Your task to perform on an android device: check out phone information Image 0: 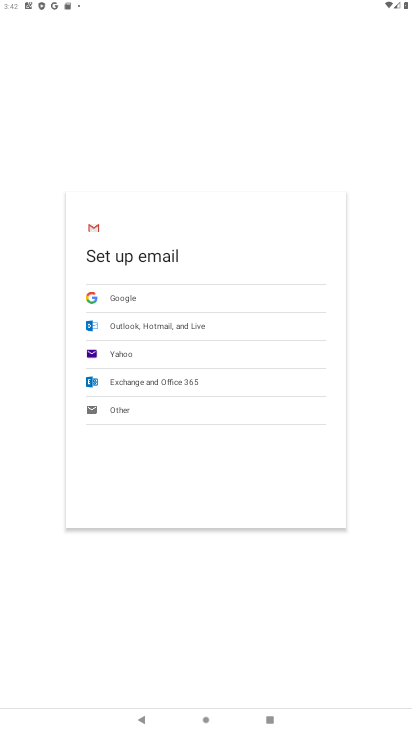
Step 0: press home button
Your task to perform on an android device: check out phone information Image 1: 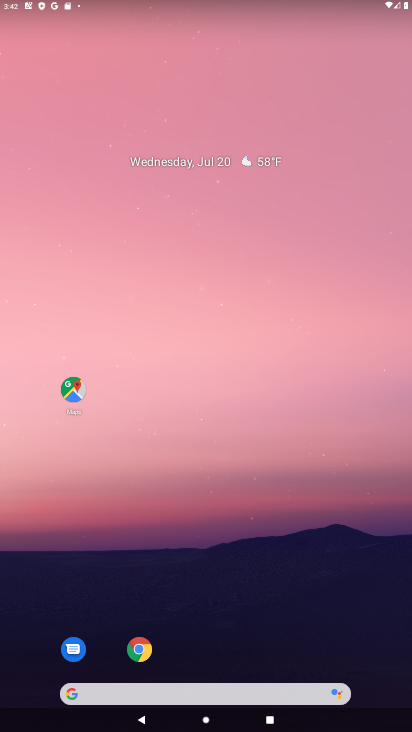
Step 1: drag from (226, 691) to (228, 334)
Your task to perform on an android device: check out phone information Image 2: 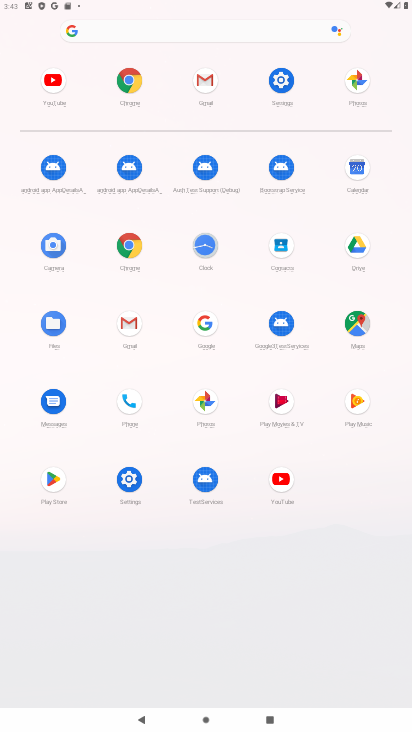
Step 2: click (281, 83)
Your task to perform on an android device: check out phone information Image 3: 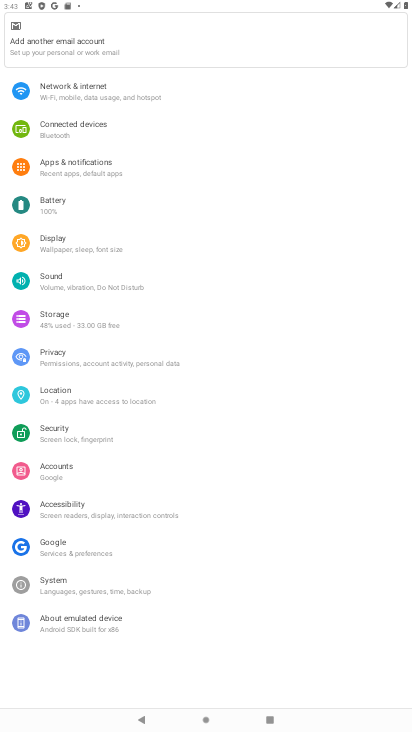
Step 3: click (84, 621)
Your task to perform on an android device: check out phone information Image 4: 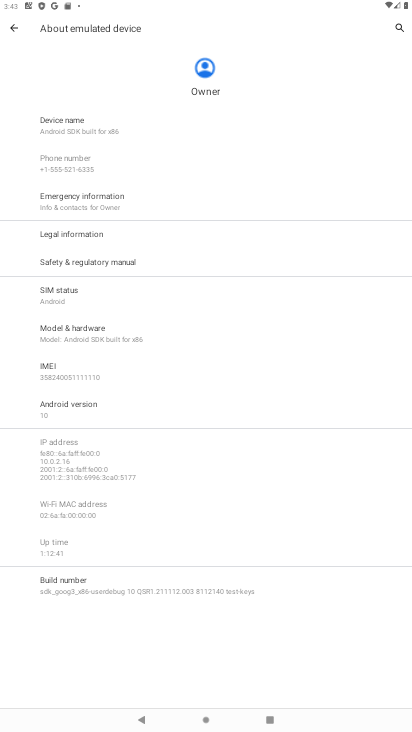
Step 4: task complete